Your task to perform on an android device: Go to Google maps Image 0: 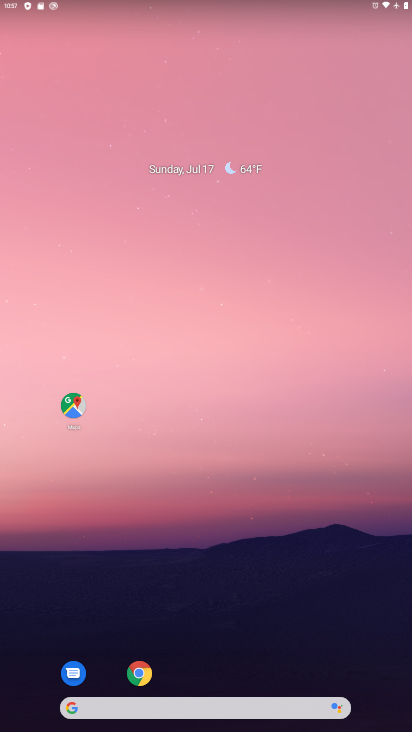
Step 0: click (72, 412)
Your task to perform on an android device: Go to Google maps Image 1: 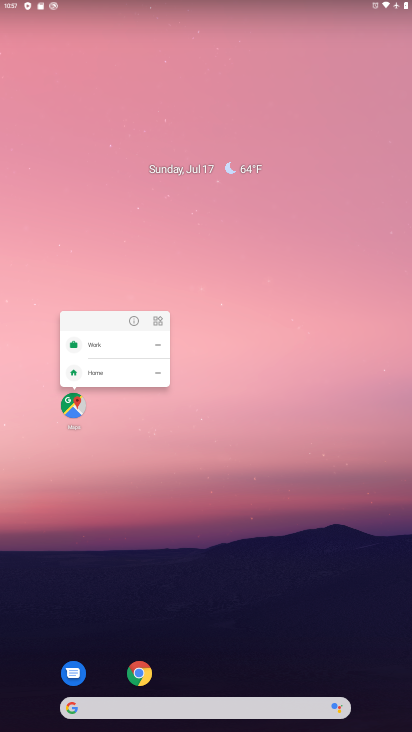
Step 1: click (72, 412)
Your task to perform on an android device: Go to Google maps Image 2: 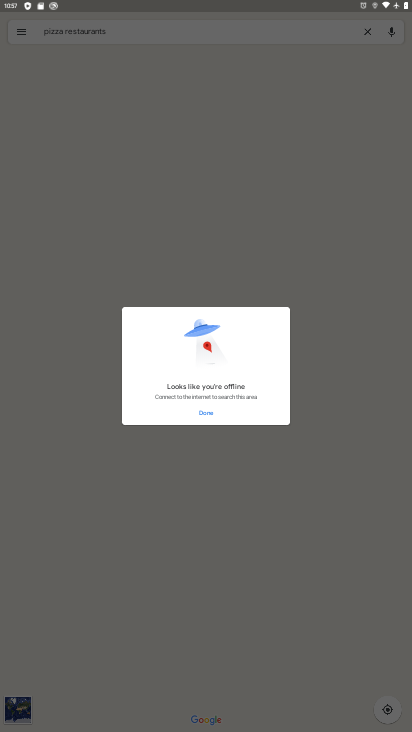
Step 2: task complete